Your task to perform on an android device: find photos in the google photos app Image 0: 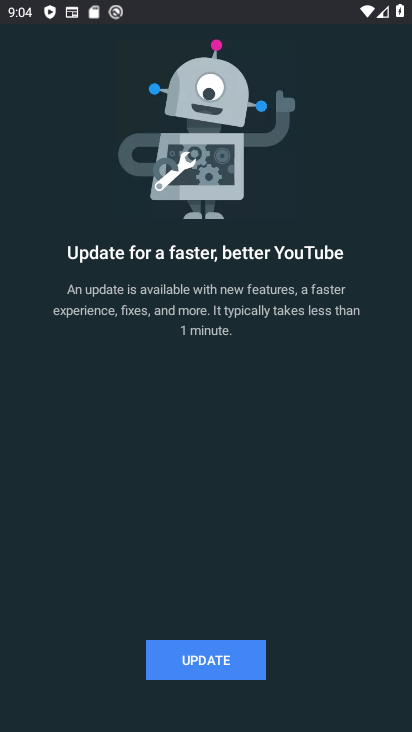
Step 0: press home button
Your task to perform on an android device: find photos in the google photos app Image 1: 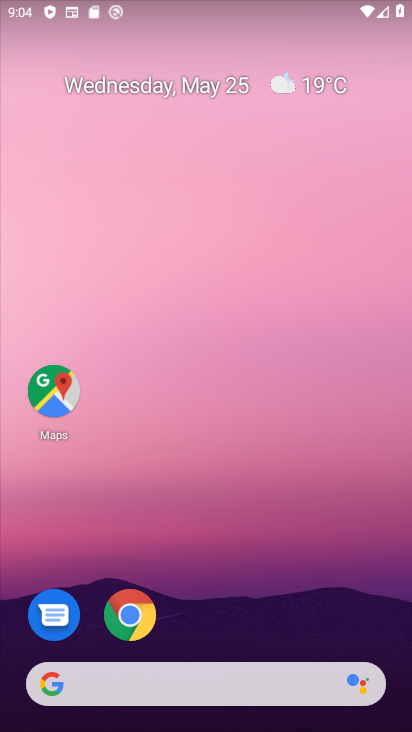
Step 1: drag from (227, 712) to (299, 67)
Your task to perform on an android device: find photos in the google photos app Image 2: 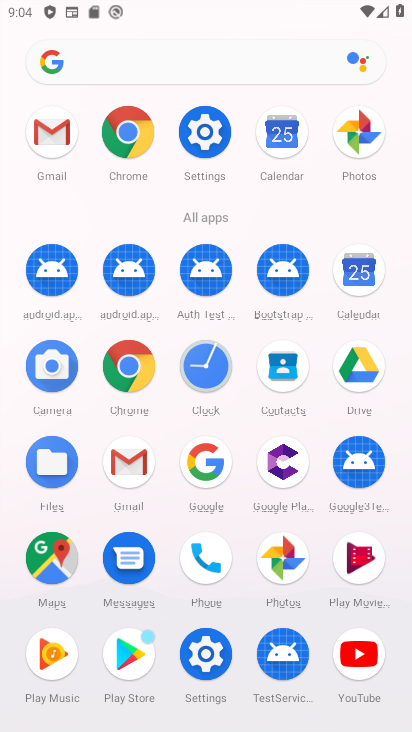
Step 2: click (271, 559)
Your task to perform on an android device: find photos in the google photos app Image 3: 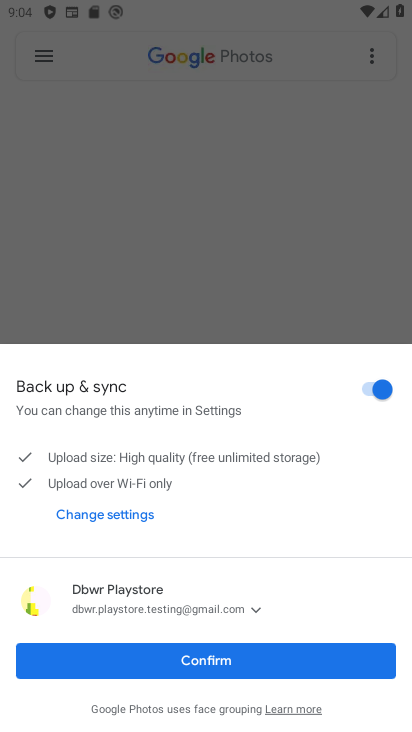
Step 3: click (219, 658)
Your task to perform on an android device: find photos in the google photos app Image 4: 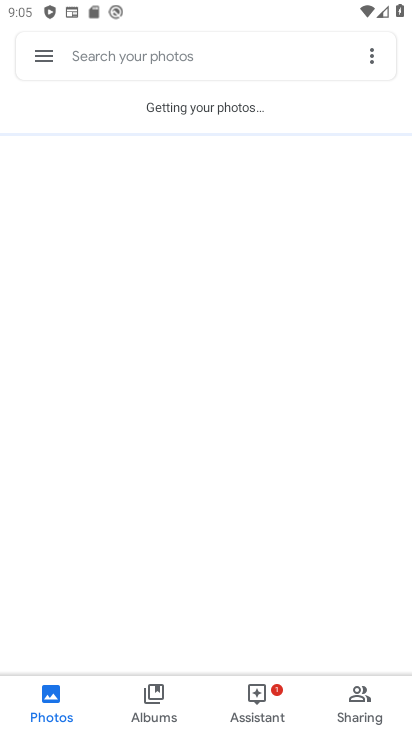
Step 4: click (188, 112)
Your task to perform on an android device: find photos in the google photos app Image 5: 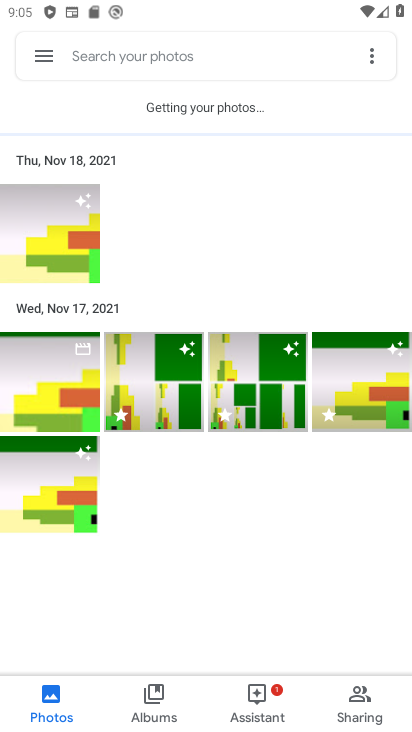
Step 5: task complete